Your task to perform on an android device: Go to Amazon Image 0: 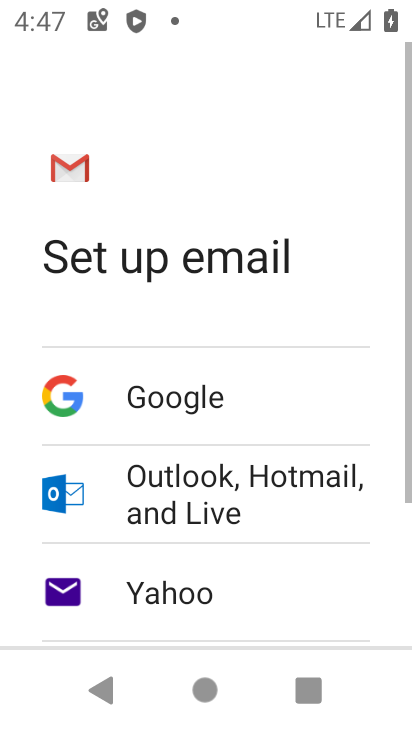
Step 0: press home button
Your task to perform on an android device: Go to Amazon Image 1: 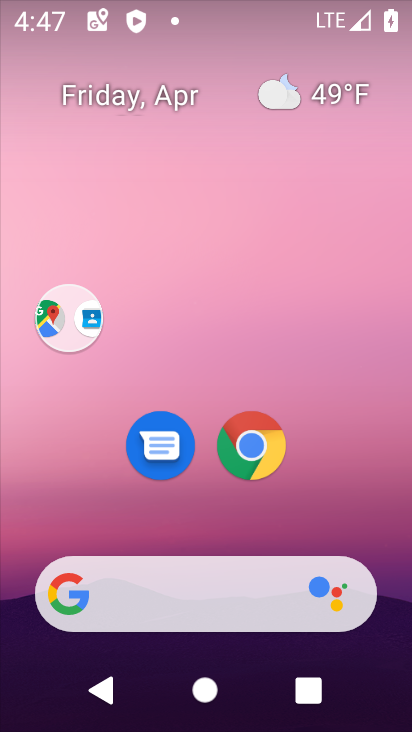
Step 1: drag from (327, 483) to (335, 37)
Your task to perform on an android device: Go to Amazon Image 2: 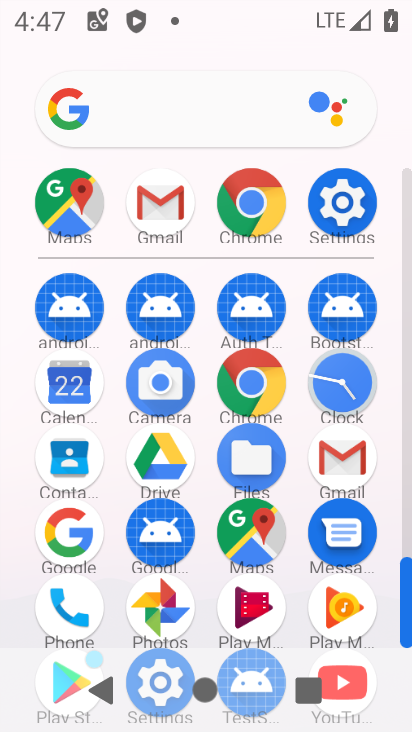
Step 2: click (258, 382)
Your task to perform on an android device: Go to Amazon Image 3: 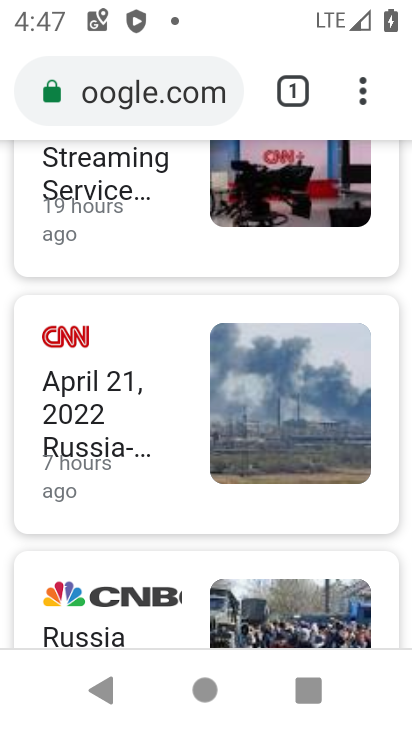
Step 3: click (183, 99)
Your task to perform on an android device: Go to Amazon Image 4: 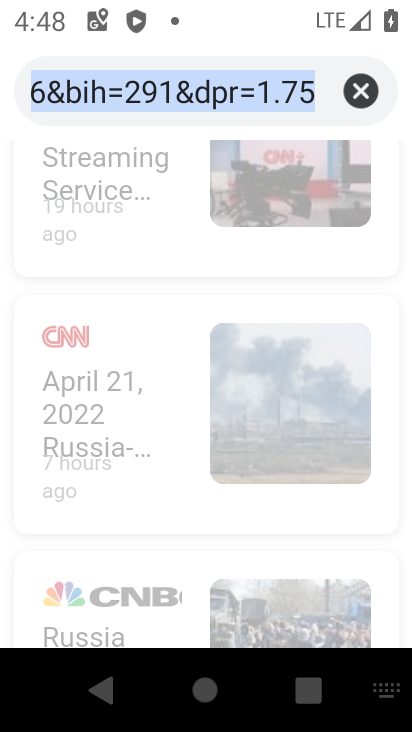
Step 4: type "amazon"
Your task to perform on an android device: Go to Amazon Image 5: 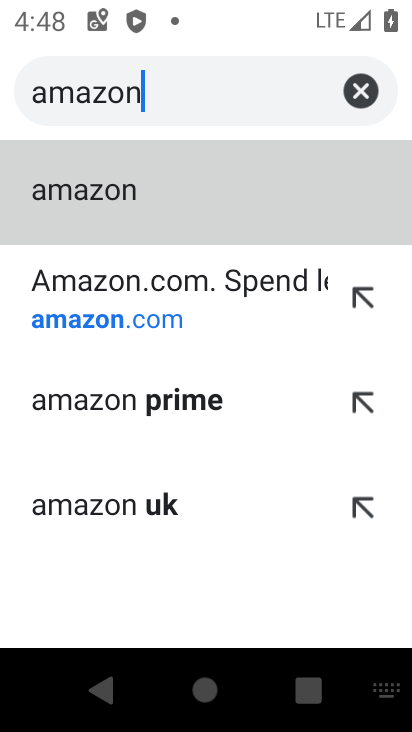
Step 5: press enter
Your task to perform on an android device: Go to Amazon Image 6: 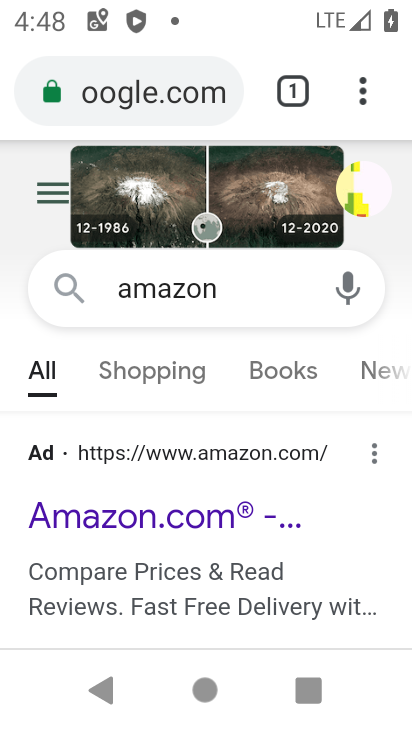
Step 6: click (171, 523)
Your task to perform on an android device: Go to Amazon Image 7: 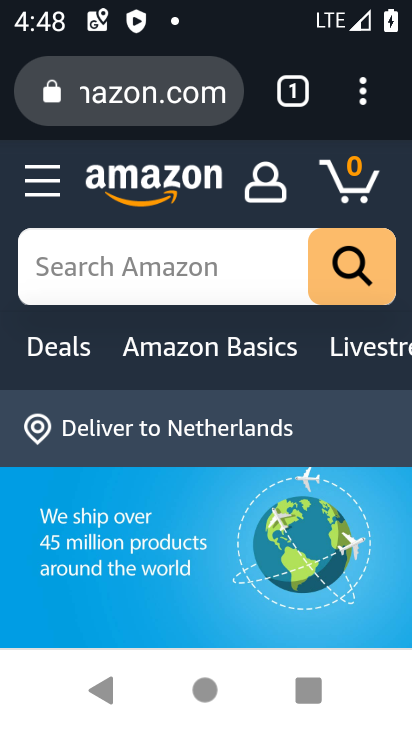
Step 7: task complete